Your task to perform on an android device: delete browsing data in the chrome app Image 0: 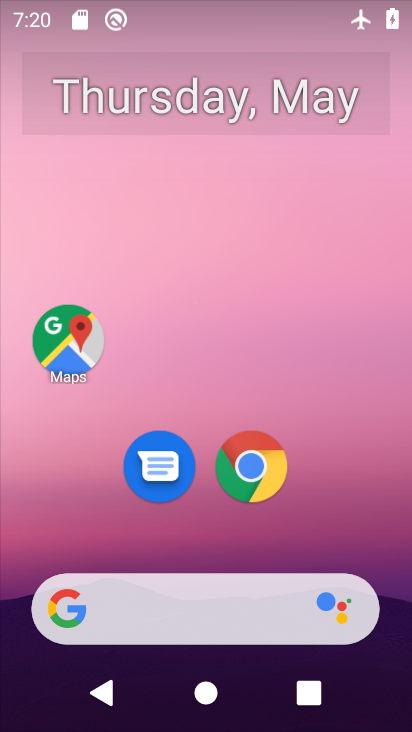
Step 0: click (262, 469)
Your task to perform on an android device: delete browsing data in the chrome app Image 1: 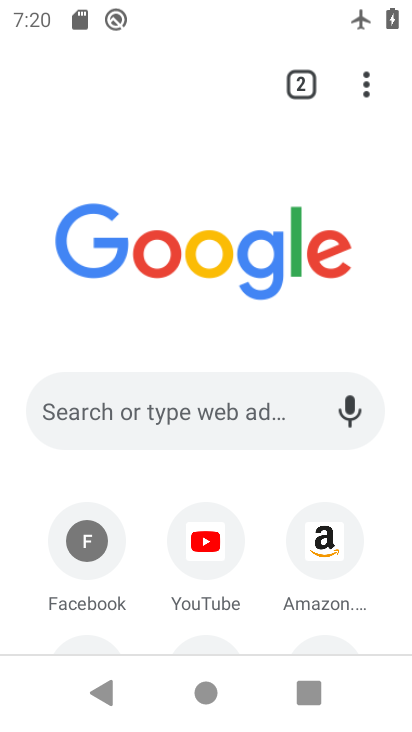
Step 1: click (373, 76)
Your task to perform on an android device: delete browsing data in the chrome app Image 2: 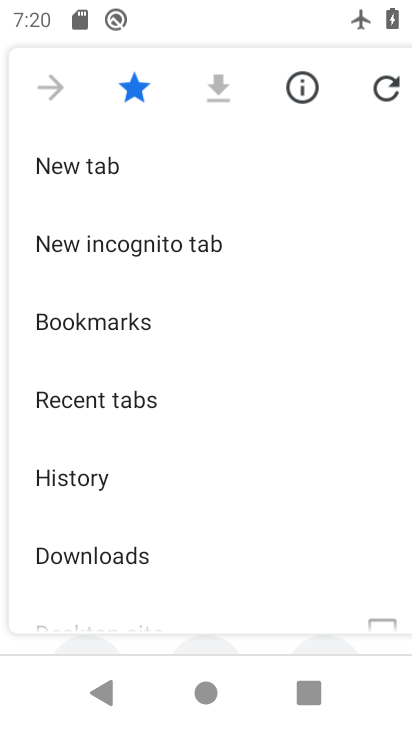
Step 2: click (182, 491)
Your task to perform on an android device: delete browsing data in the chrome app Image 3: 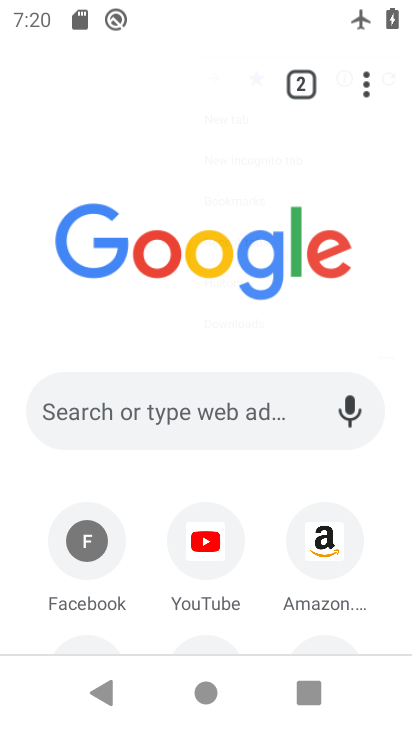
Step 3: drag from (182, 491) to (198, 242)
Your task to perform on an android device: delete browsing data in the chrome app Image 4: 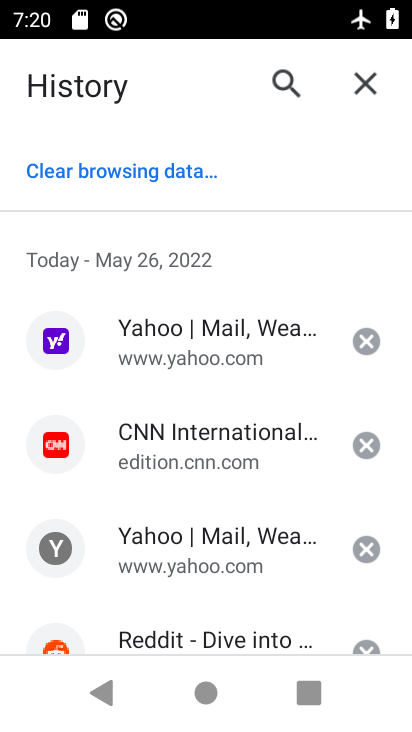
Step 4: click (364, 101)
Your task to perform on an android device: delete browsing data in the chrome app Image 5: 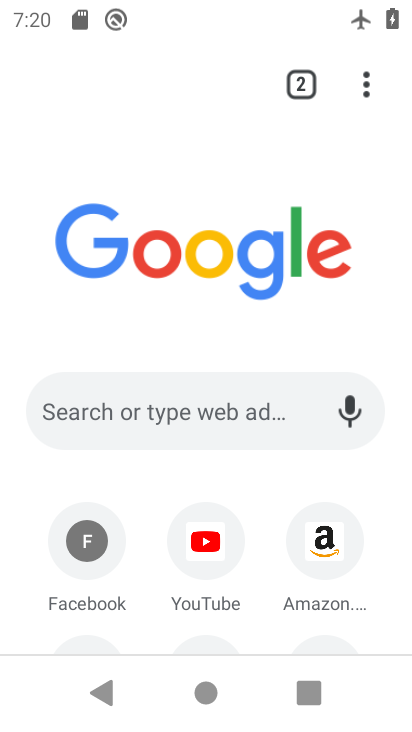
Step 5: click (364, 101)
Your task to perform on an android device: delete browsing data in the chrome app Image 6: 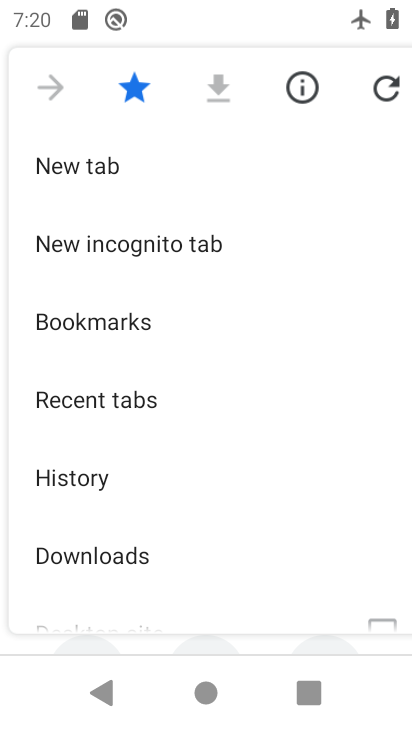
Step 6: drag from (152, 593) to (159, 275)
Your task to perform on an android device: delete browsing data in the chrome app Image 7: 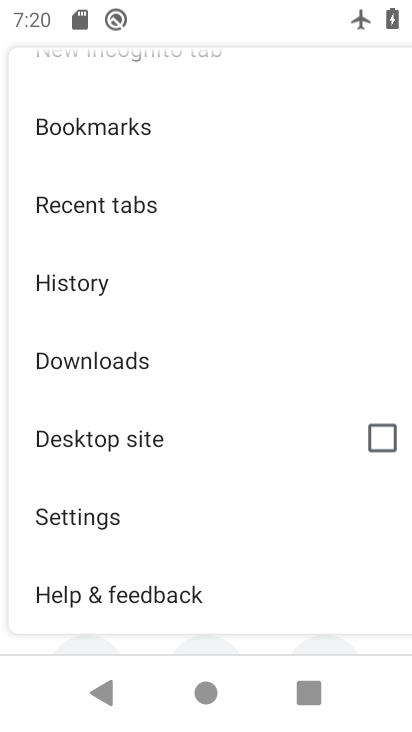
Step 7: click (135, 513)
Your task to perform on an android device: delete browsing data in the chrome app Image 8: 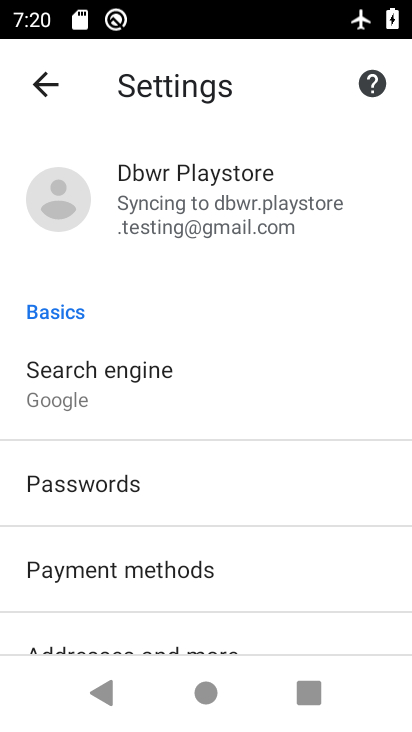
Step 8: click (52, 87)
Your task to perform on an android device: delete browsing data in the chrome app Image 9: 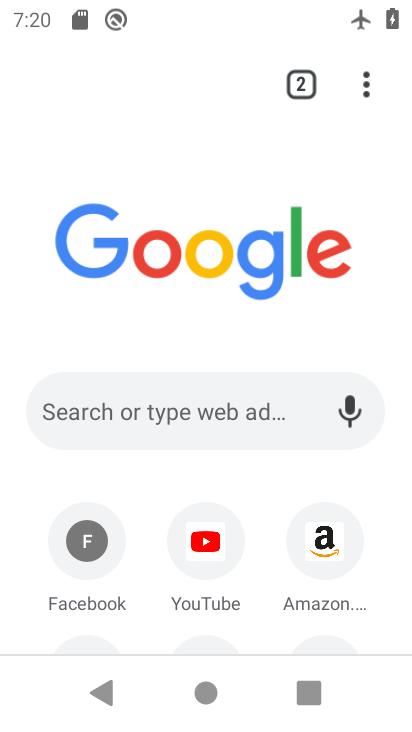
Step 9: click (367, 81)
Your task to perform on an android device: delete browsing data in the chrome app Image 10: 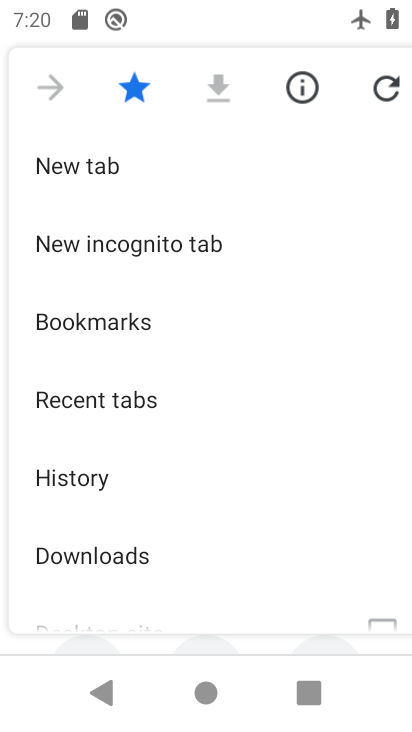
Step 10: click (196, 480)
Your task to perform on an android device: delete browsing data in the chrome app Image 11: 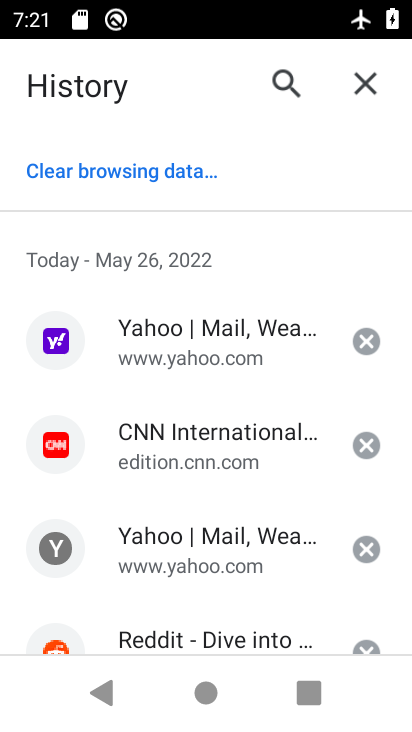
Step 11: click (138, 166)
Your task to perform on an android device: delete browsing data in the chrome app Image 12: 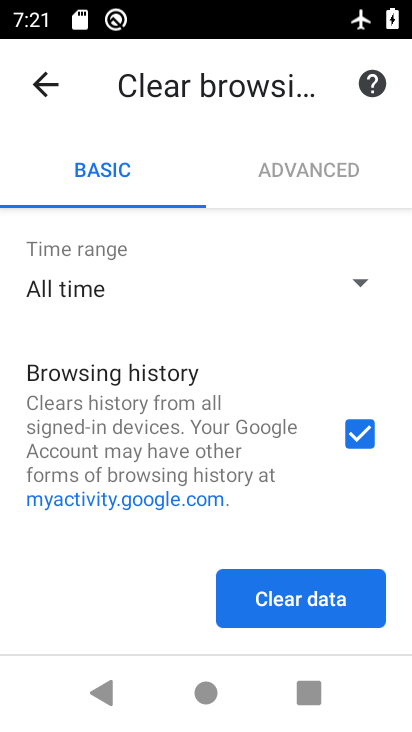
Step 12: click (294, 596)
Your task to perform on an android device: delete browsing data in the chrome app Image 13: 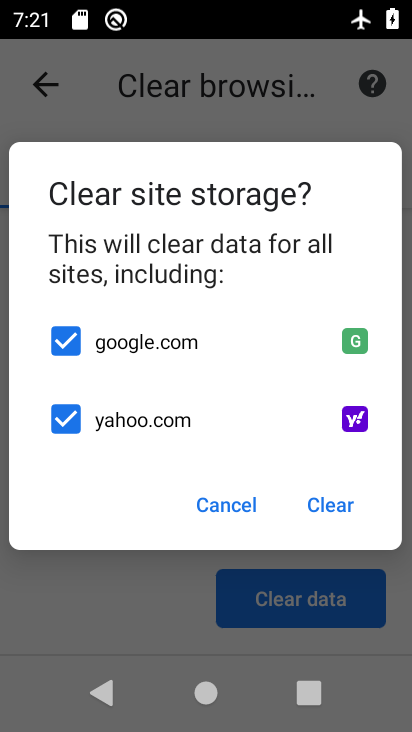
Step 13: click (330, 494)
Your task to perform on an android device: delete browsing data in the chrome app Image 14: 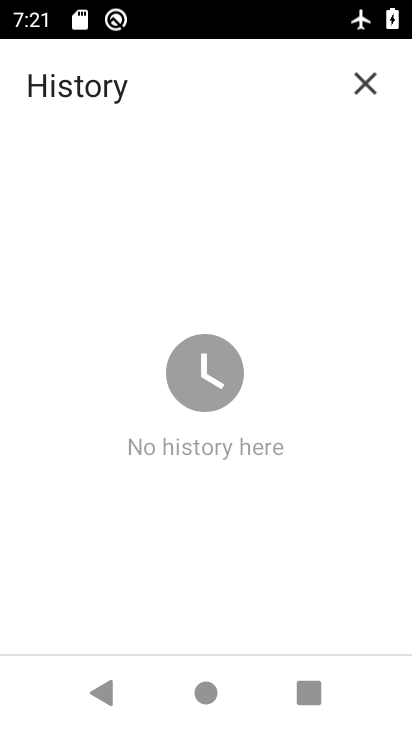
Step 14: task complete